Your task to perform on an android device: Go to settings Image 0: 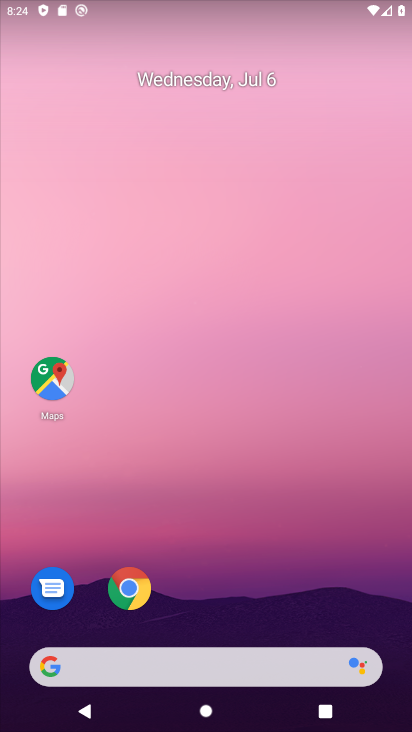
Step 0: drag from (194, 584) to (243, 238)
Your task to perform on an android device: Go to settings Image 1: 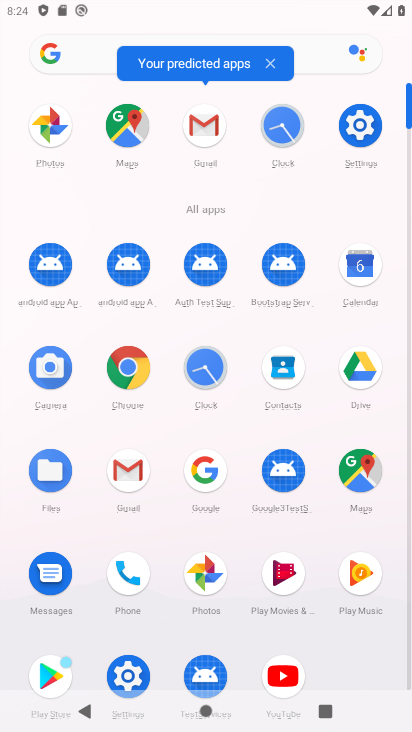
Step 1: click (356, 130)
Your task to perform on an android device: Go to settings Image 2: 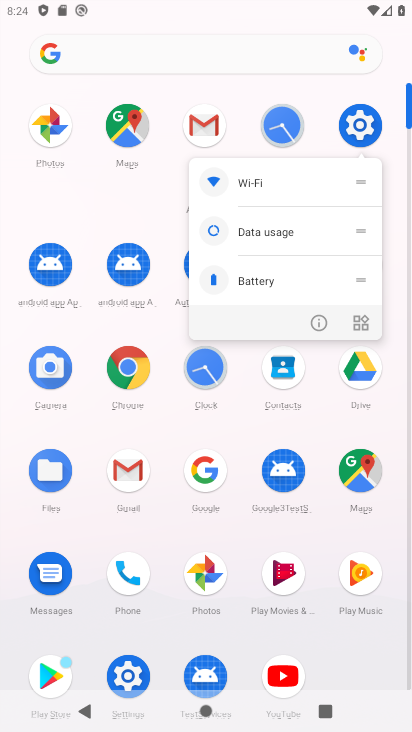
Step 2: click (315, 313)
Your task to perform on an android device: Go to settings Image 3: 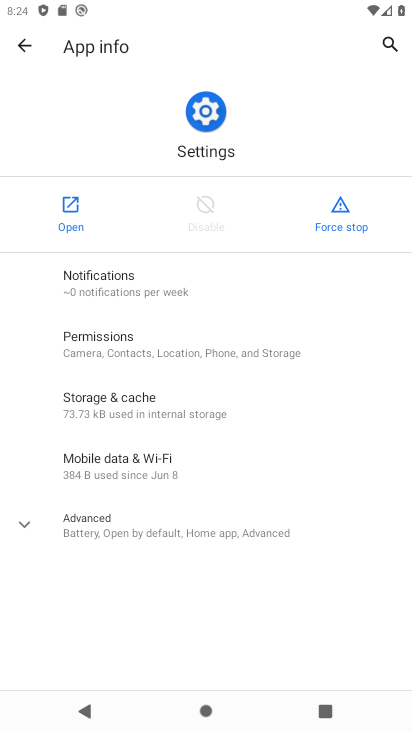
Step 3: click (69, 216)
Your task to perform on an android device: Go to settings Image 4: 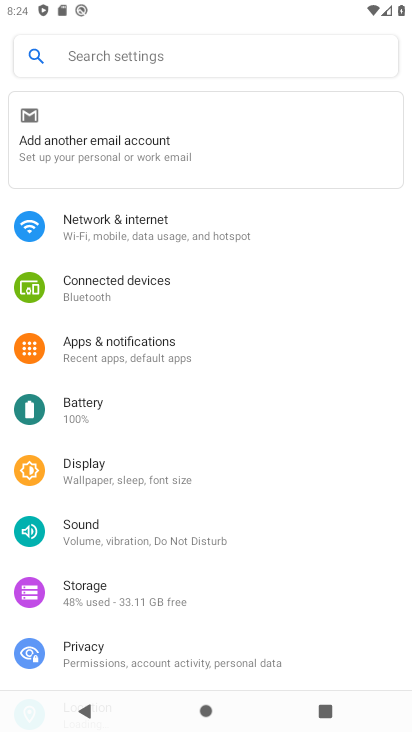
Step 4: task complete